Your task to perform on an android device: see creations saved in the google photos Image 0: 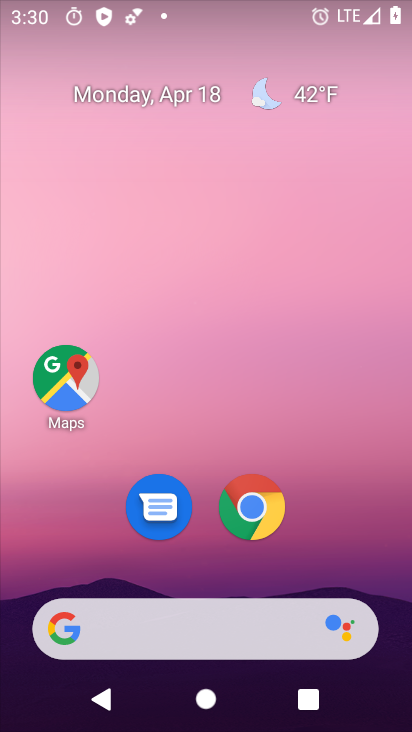
Step 0: drag from (377, 570) to (327, 154)
Your task to perform on an android device: see creations saved in the google photos Image 1: 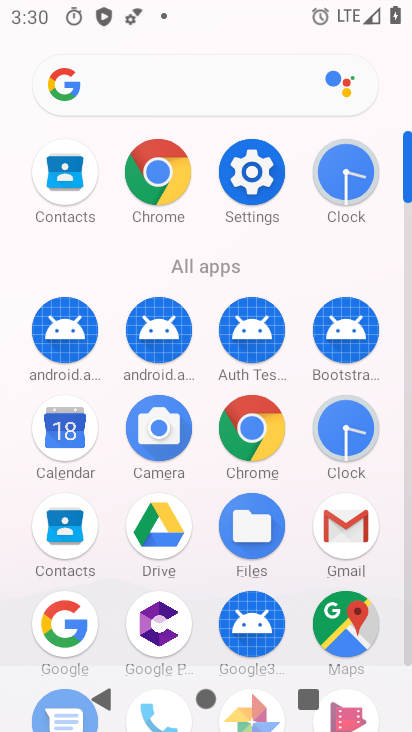
Step 1: drag from (197, 569) to (195, 352)
Your task to perform on an android device: see creations saved in the google photos Image 2: 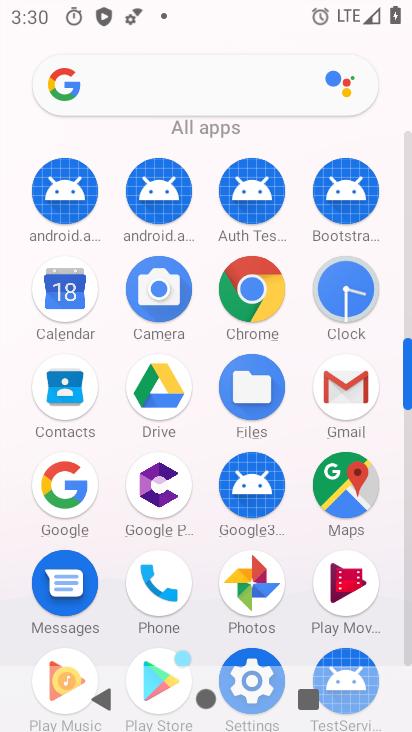
Step 2: click (244, 598)
Your task to perform on an android device: see creations saved in the google photos Image 3: 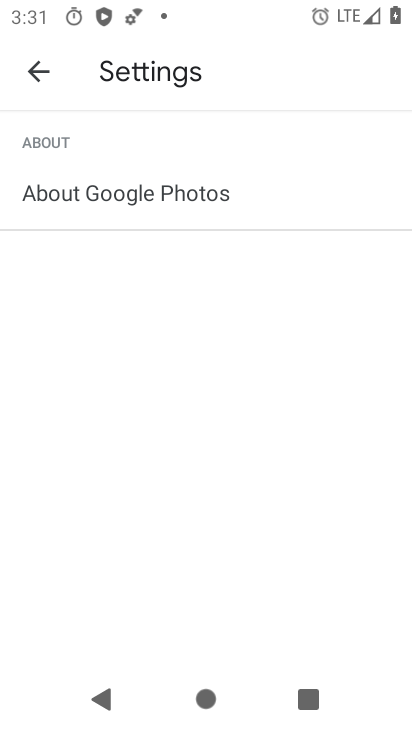
Step 3: click (43, 61)
Your task to perform on an android device: see creations saved in the google photos Image 4: 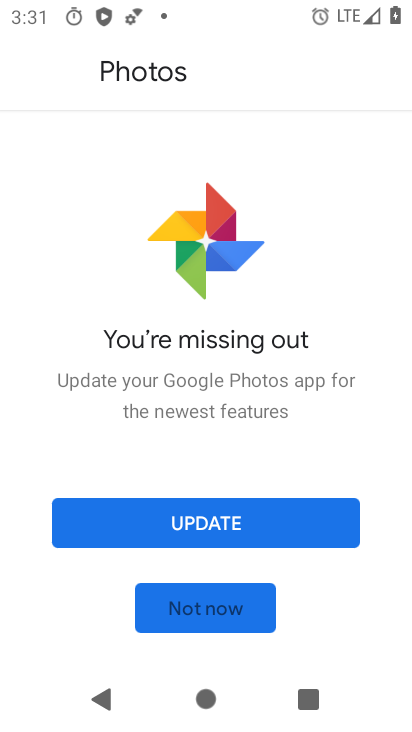
Step 4: click (215, 532)
Your task to perform on an android device: see creations saved in the google photos Image 5: 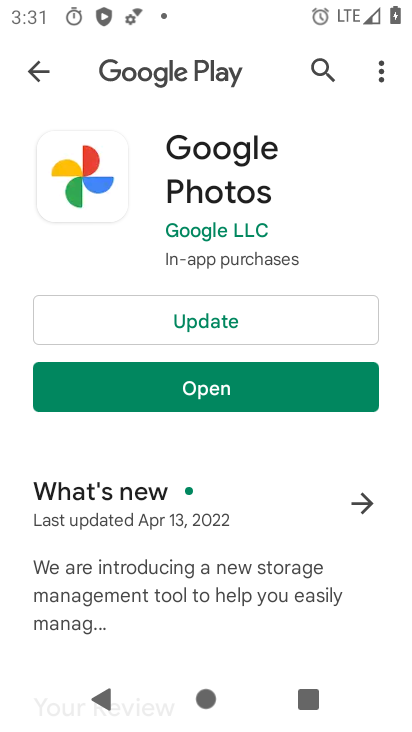
Step 5: click (248, 313)
Your task to perform on an android device: see creations saved in the google photos Image 6: 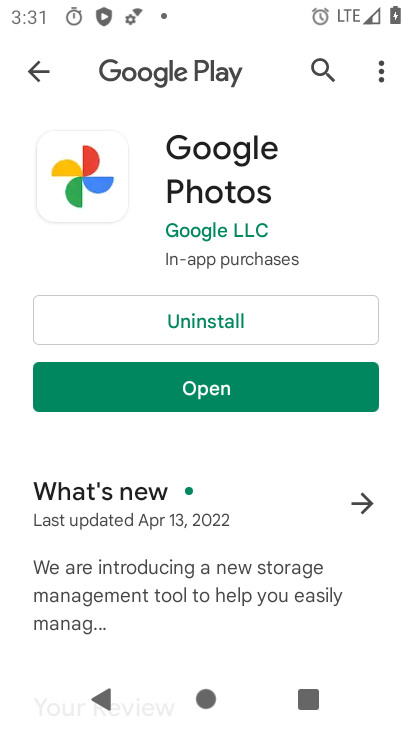
Step 6: click (227, 389)
Your task to perform on an android device: see creations saved in the google photos Image 7: 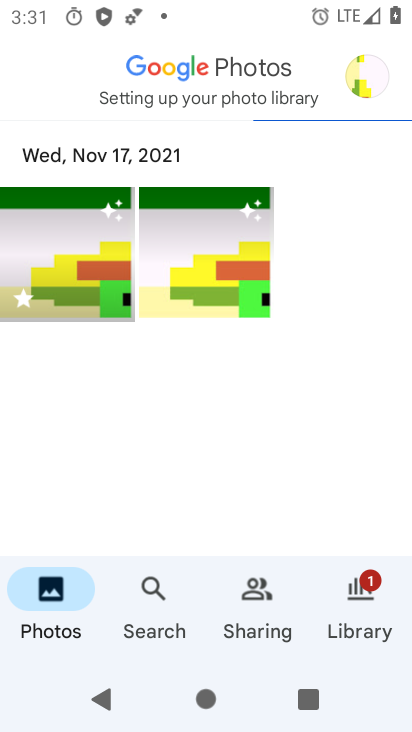
Step 7: click (151, 595)
Your task to perform on an android device: see creations saved in the google photos Image 8: 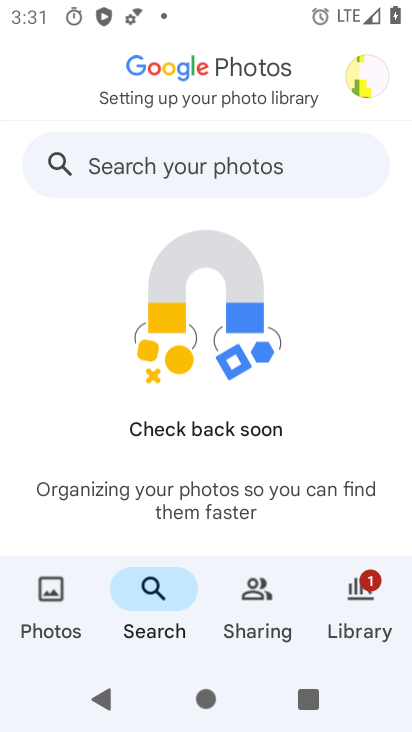
Step 8: click (198, 170)
Your task to perform on an android device: see creations saved in the google photos Image 9: 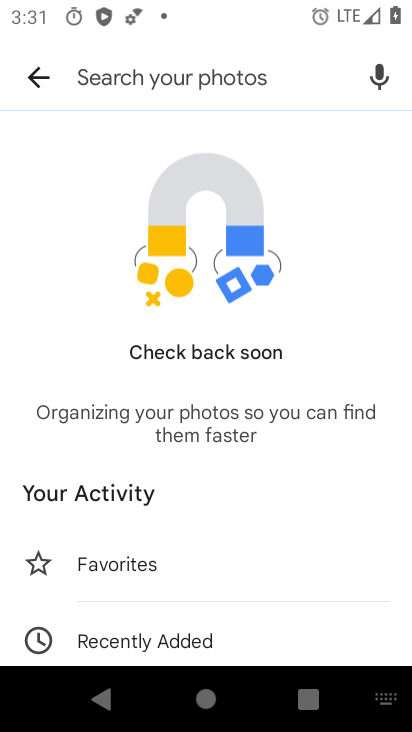
Step 9: type "creations"
Your task to perform on an android device: see creations saved in the google photos Image 10: 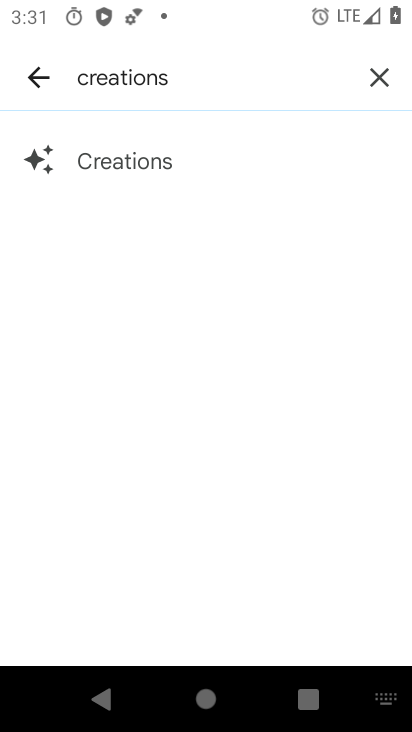
Step 10: click (122, 138)
Your task to perform on an android device: see creations saved in the google photos Image 11: 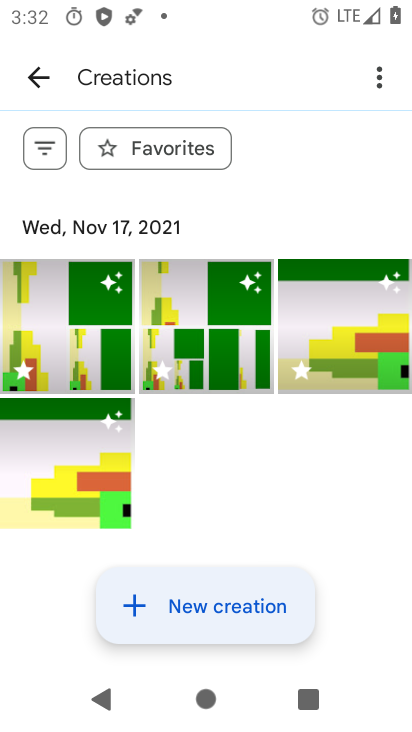
Step 11: task complete